Your task to perform on an android device: Open Chrome and go to the settings page Image 0: 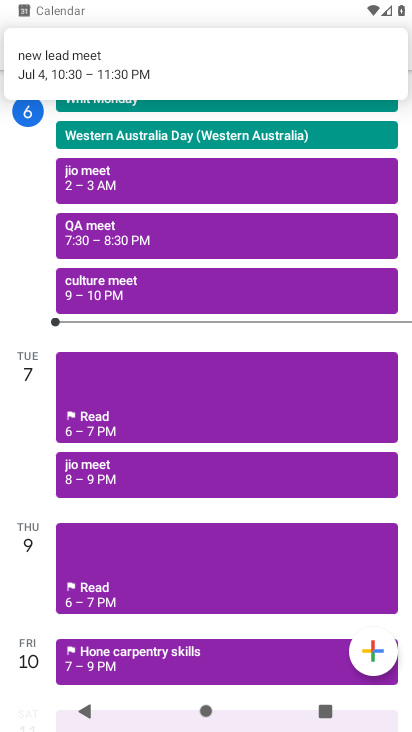
Step 0: click (267, 59)
Your task to perform on an android device: Open Chrome and go to the settings page Image 1: 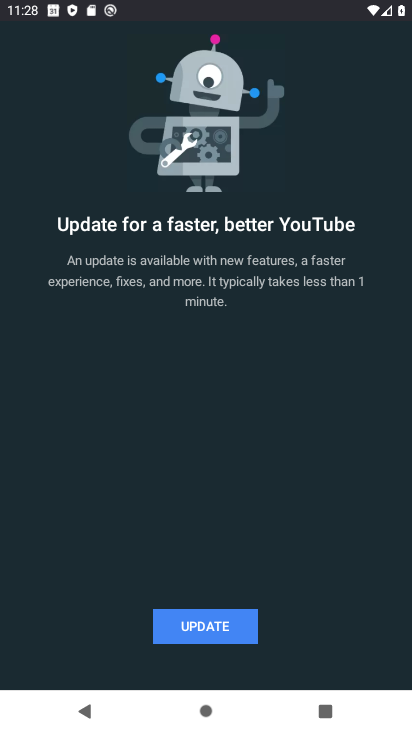
Step 1: press back button
Your task to perform on an android device: Open Chrome and go to the settings page Image 2: 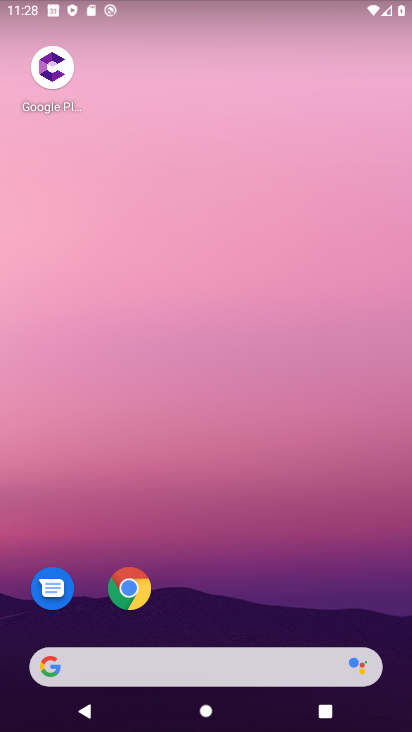
Step 2: drag from (398, 670) to (264, 2)
Your task to perform on an android device: Open Chrome and go to the settings page Image 3: 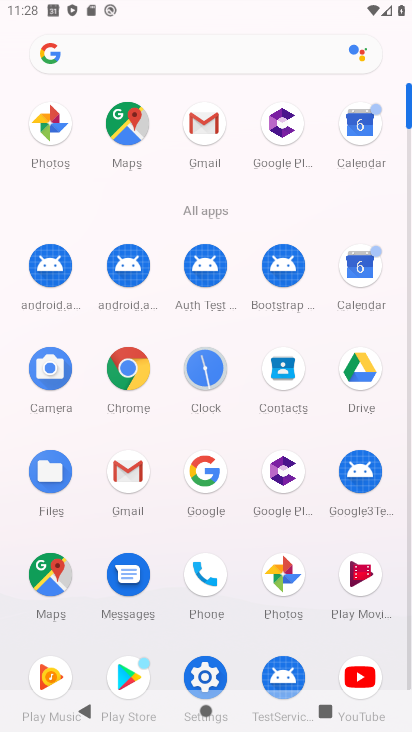
Step 3: click (116, 352)
Your task to perform on an android device: Open Chrome and go to the settings page Image 4: 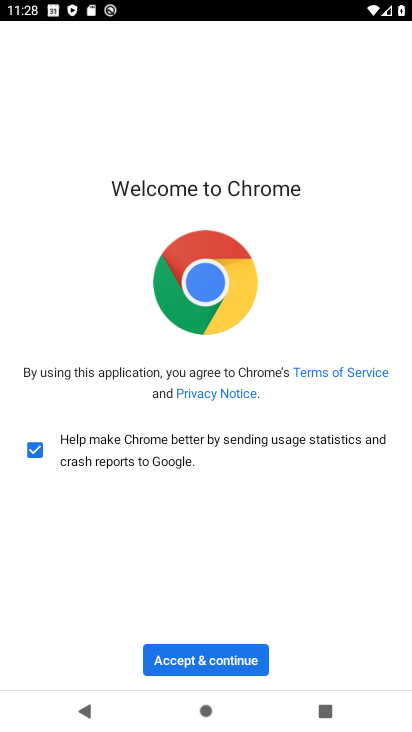
Step 4: drag from (407, 106) to (209, 664)
Your task to perform on an android device: Open Chrome and go to the settings page Image 5: 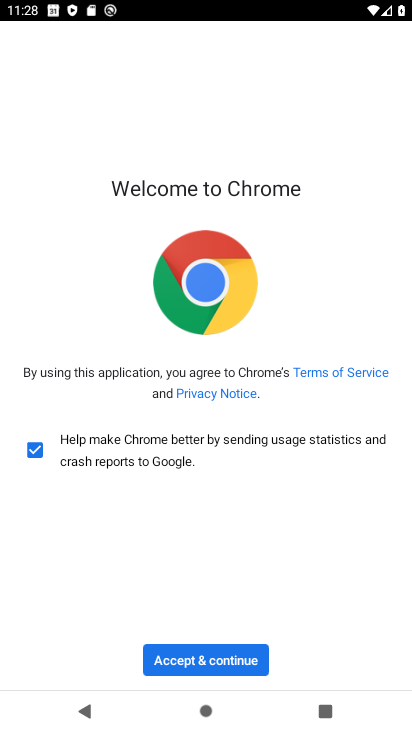
Step 5: drag from (407, 106) to (209, 664)
Your task to perform on an android device: Open Chrome and go to the settings page Image 6: 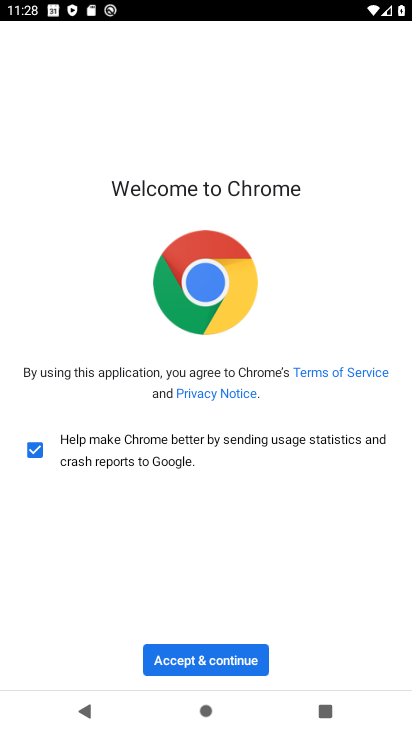
Step 6: click (233, 662)
Your task to perform on an android device: Open Chrome and go to the settings page Image 7: 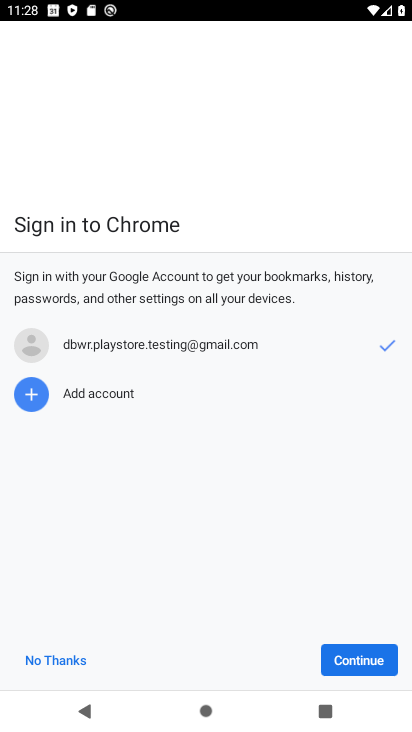
Step 7: click (366, 646)
Your task to perform on an android device: Open Chrome and go to the settings page Image 8: 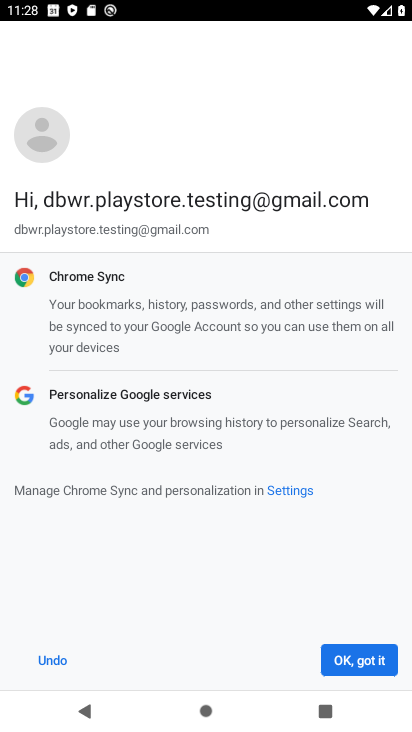
Step 8: click (376, 655)
Your task to perform on an android device: Open Chrome and go to the settings page Image 9: 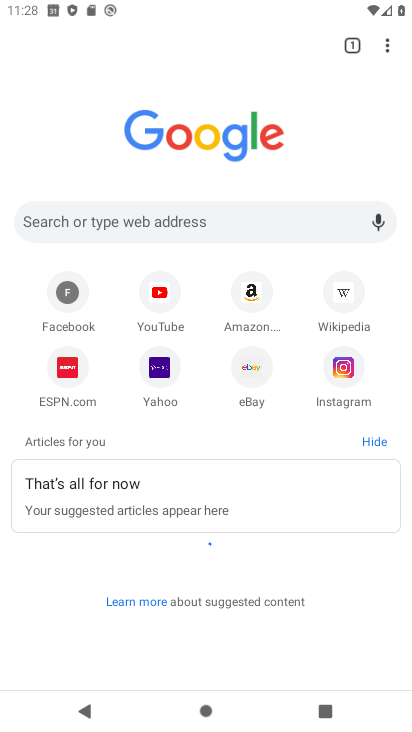
Step 9: click (385, 41)
Your task to perform on an android device: Open Chrome and go to the settings page Image 10: 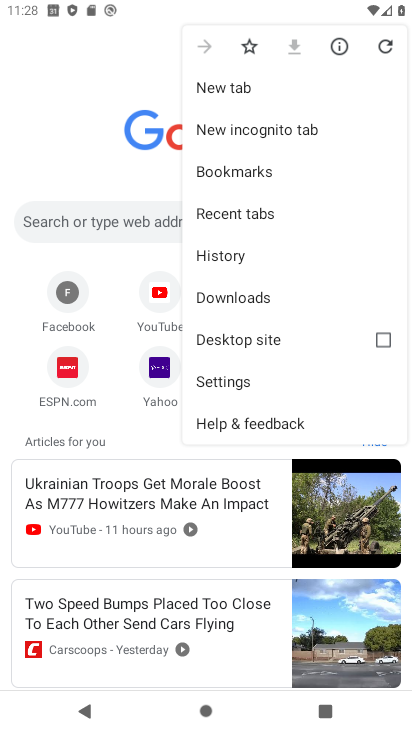
Step 10: click (235, 388)
Your task to perform on an android device: Open Chrome and go to the settings page Image 11: 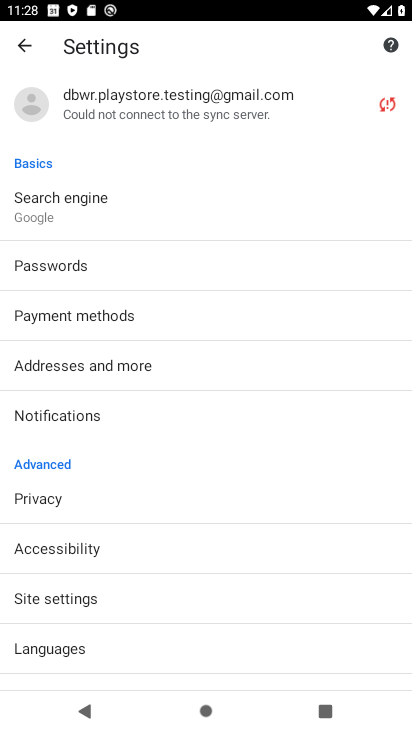
Step 11: task complete